Your task to perform on an android device: Open wifi settings Image 0: 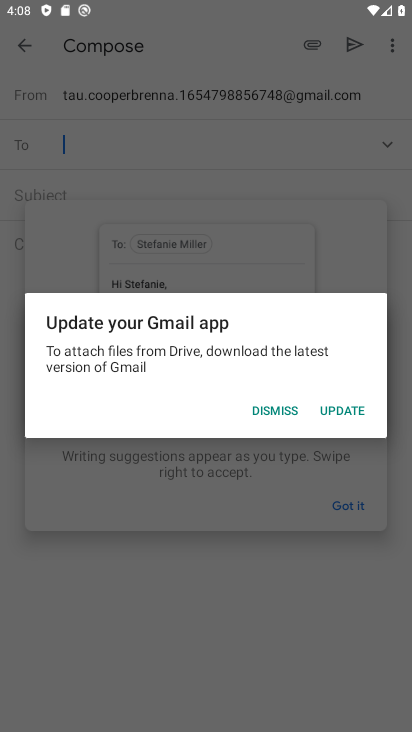
Step 0: click (263, 411)
Your task to perform on an android device: Open wifi settings Image 1: 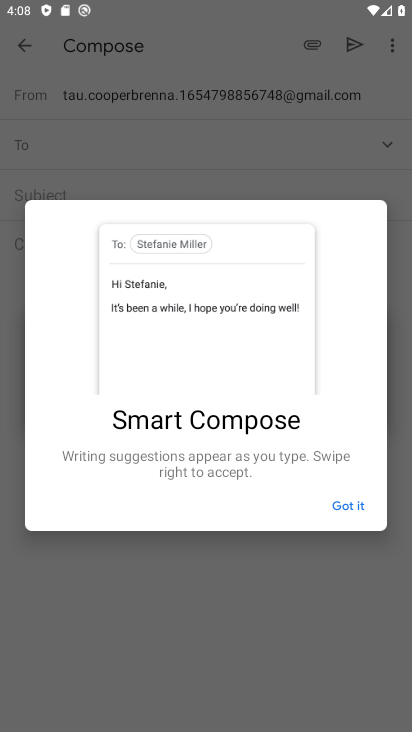
Step 1: click (345, 506)
Your task to perform on an android device: Open wifi settings Image 2: 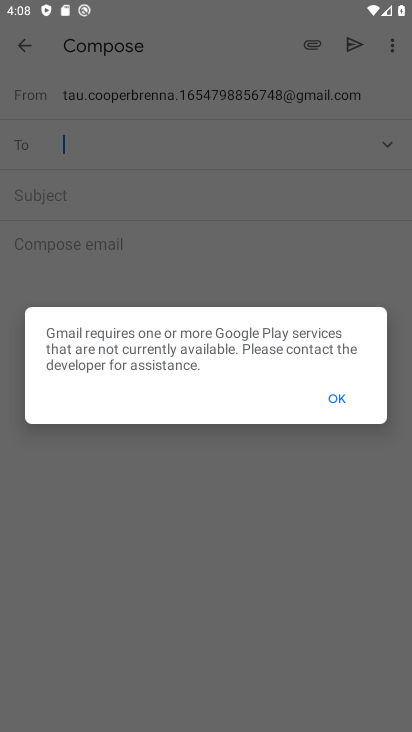
Step 2: click (332, 393)
Your task to perform on an android device: Open wifi settings Image 3: 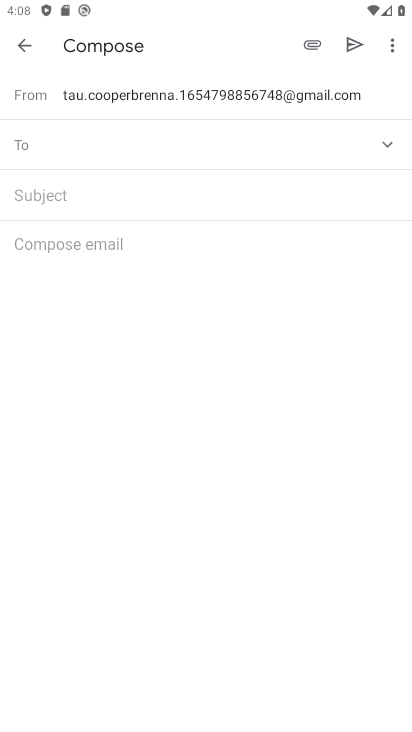
Step 3: press home button
Your task to perform on an android device: Open wifi settings Image 4: 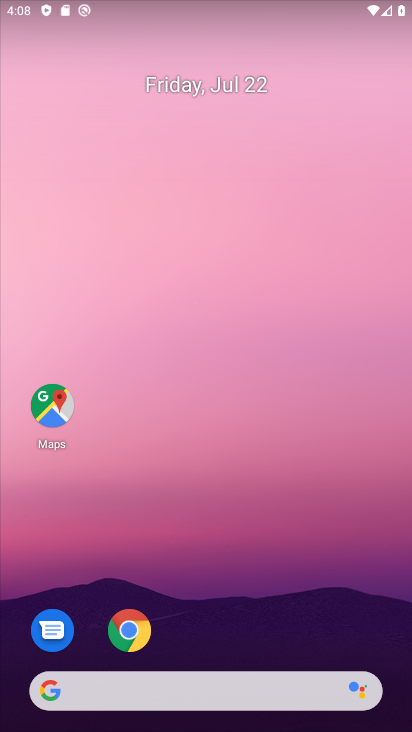
Step 4: drag from (197, 501) to (193, 256)
Your task to perform on an android device: Open wifi settings Image 5: 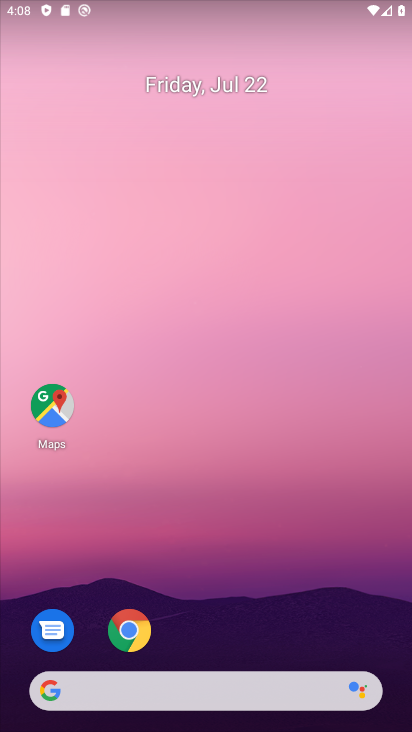
Step 5: drag from (187, 536) to (187, 262)
Your task to perform on an android device: Open wifi settings Image 6: 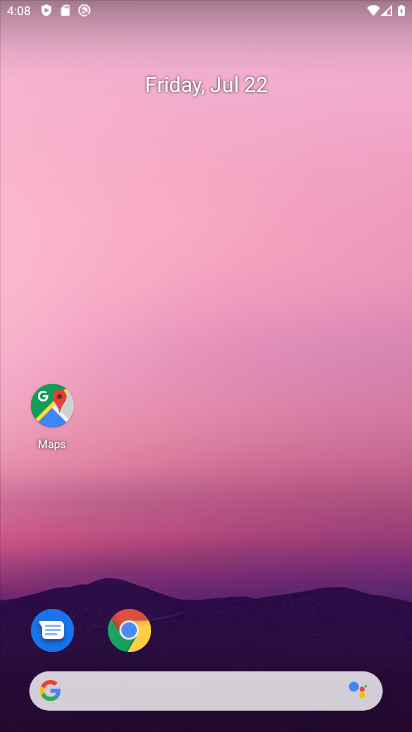
Step 6: drag from (181, 619) to (195, 192)
Your task to perform on an android device: Open wifi settings Image 7: 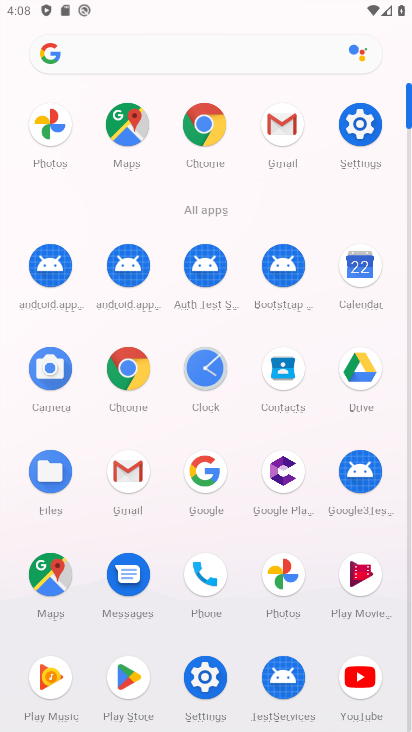
Step 7: click (351, 132)
Your task to perform on an android device: Open wifi settings Image 8: 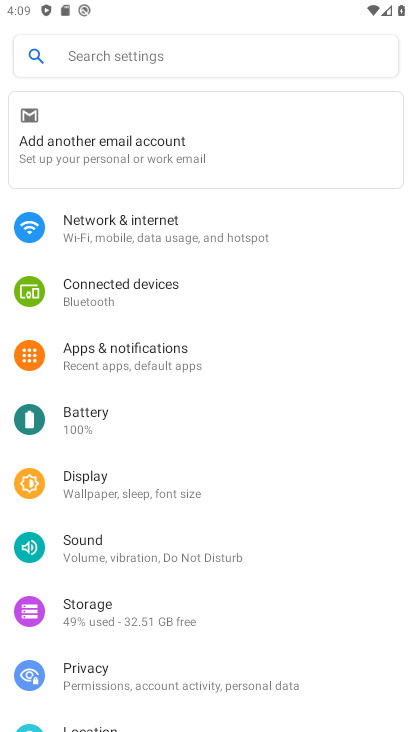
Step 8: click (115, 223)
Your task to perform on an android device: Open wifi settings Image 9: 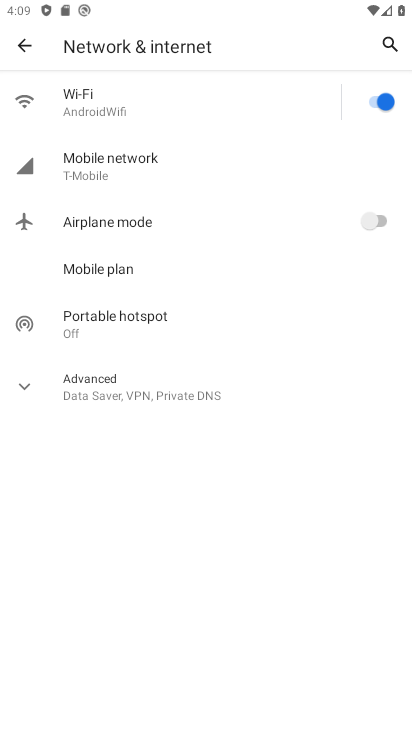
Step 9: click (162, 131)
Your task to perform on an android device: Open wifi settings Image 10: 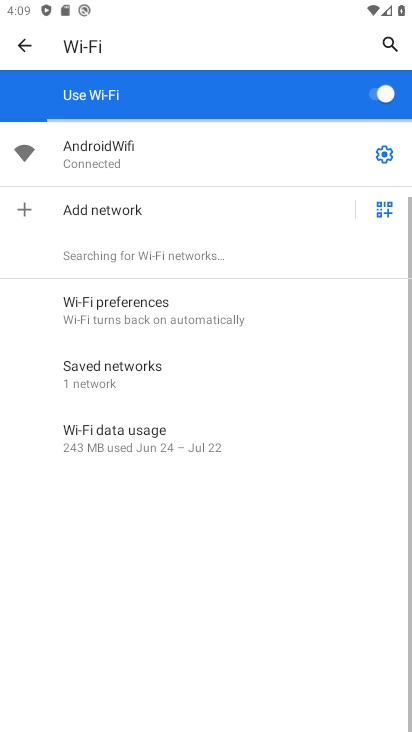
Step 10: task complete